Your task to perform on an android device: turn on priority inbox in the gmail app Image 0: 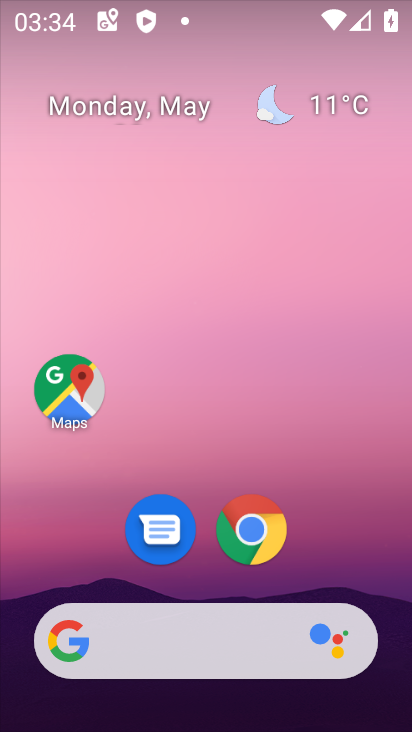
Step 0: drag from (303, 59) to (279, 12)
Your task to perform on an android device: turn on priority inbox in the gmail app Image 1: 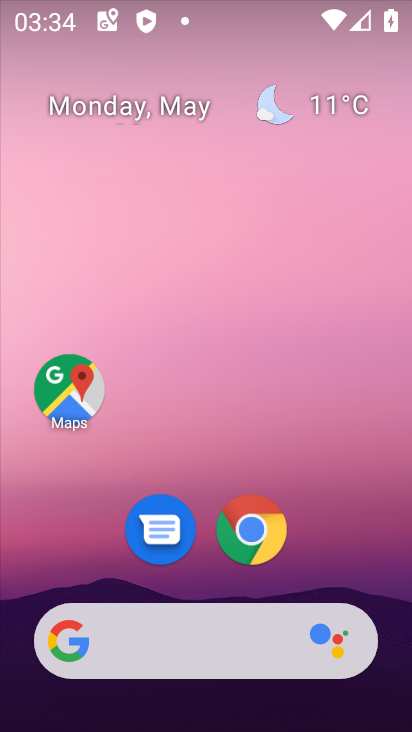
Step 1: drag from (324, 524) to (303, 200)
Your task to perform on an android device: turn on priority inbox in the gmail app Image 2: 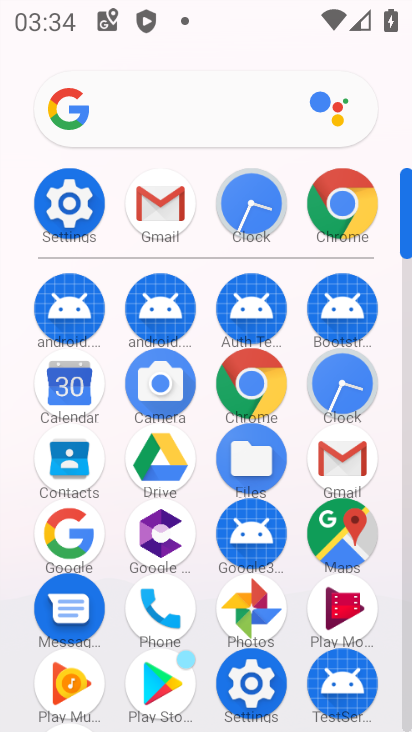
Step 2: click (183, 199)
Your task to perform on an android device: turn on priority inbox in the gmail app Image 3: 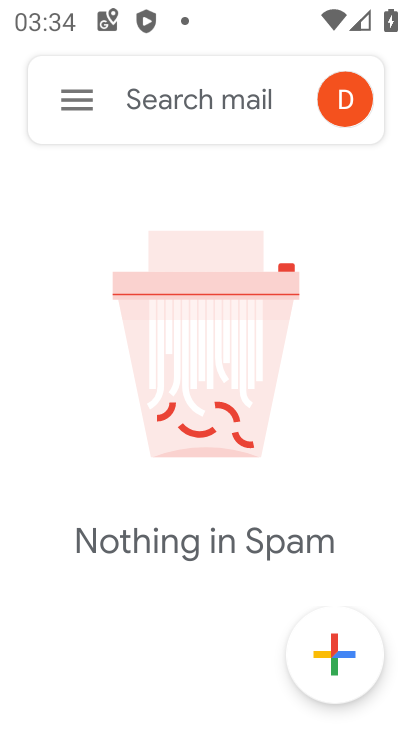
Step 3: click (87, 110)
Your task to perform on an android device: turn on priority inbox in the gmail app Image 4: 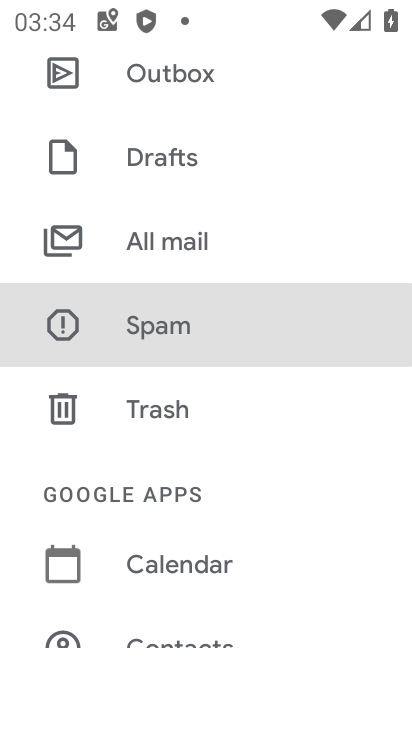
Step 4: drag from (200, 576) to (247, 183)
Your task to perform on an android device: turn on priority inbox in the gmail app Image 5: 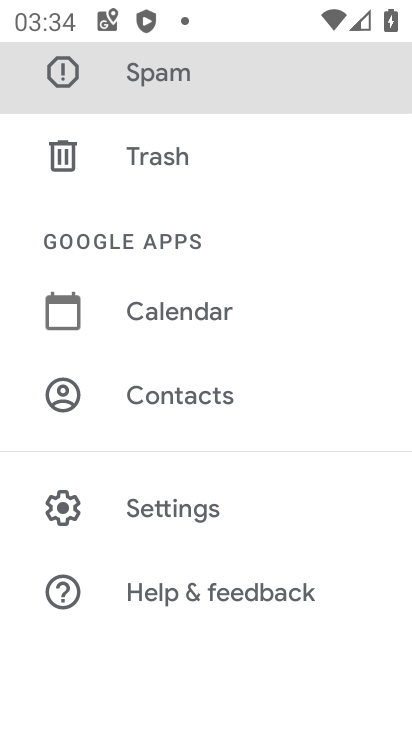
Step 5: click (204, 512)
Your task to perform on an android device: turn on priority inbox in the gmail app Image 6: 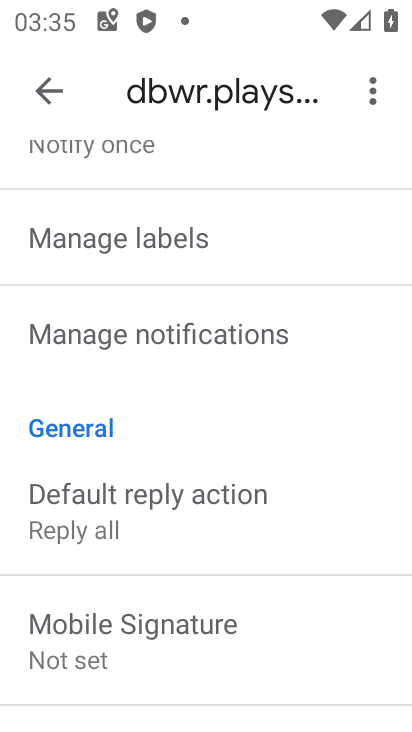
Step 6: drag from (176, 266) to (193, 610)
Your task to perform on an android device: turn on priority inbox in the gmail app Image 7: 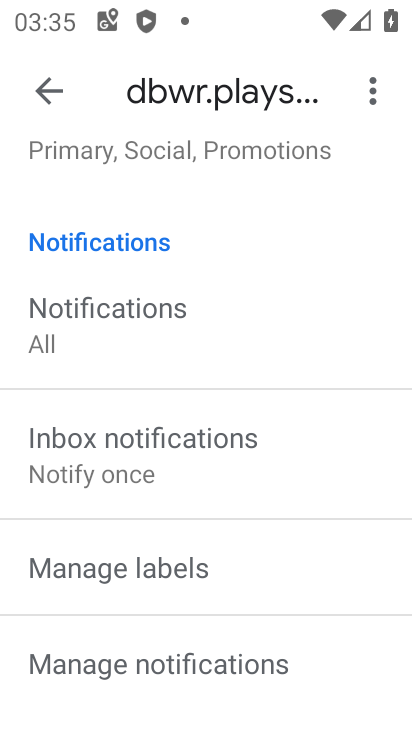
Step 7: drag from (218, 336) to (247, 637)
Your task to perform on an android device: turn on priority inbox in the gmail app Image 8: 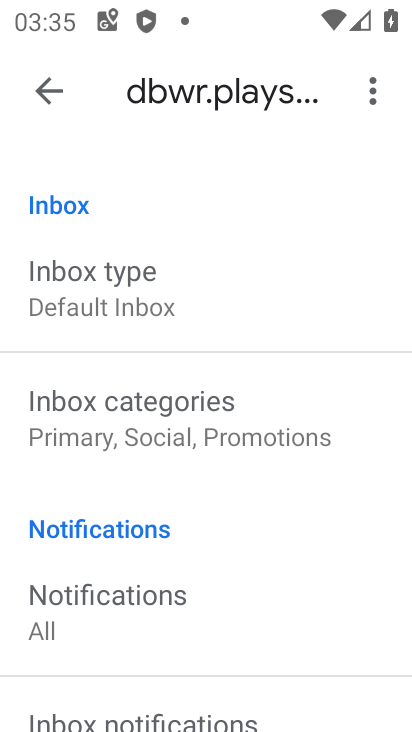
Step 8: click (140, 292)
Your task to perform on an android device: turn on priority inbox in the gmail app Image 9: 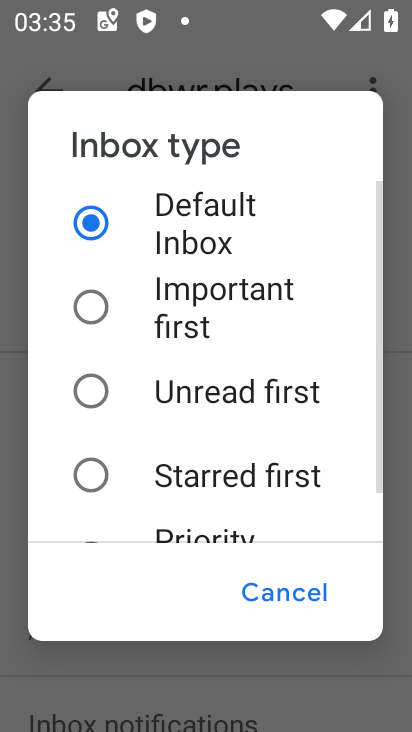
Step 9: task complete